Your task to perform on an android device: check out phone information Image 0: 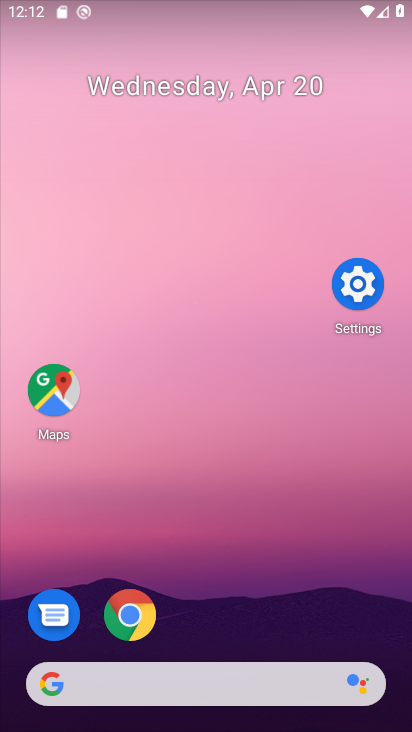
Step 0: drag from (190, 644) to (263, 191)
Your task to perform on an android device: check out phone information Image 1: 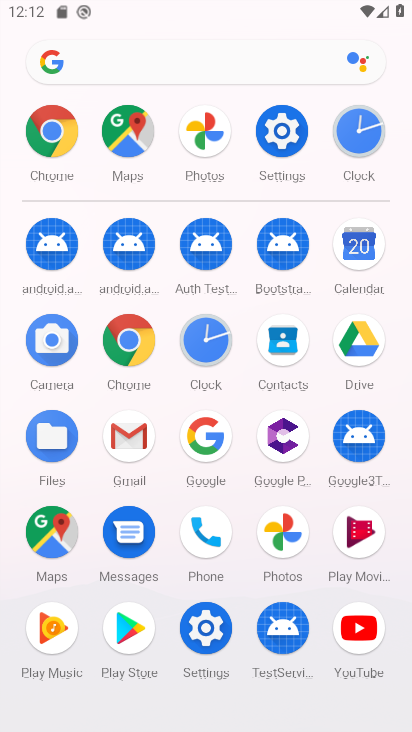
Step 1: click (211, 634)
Your task to perform on an android device: check out phone information Image 2: 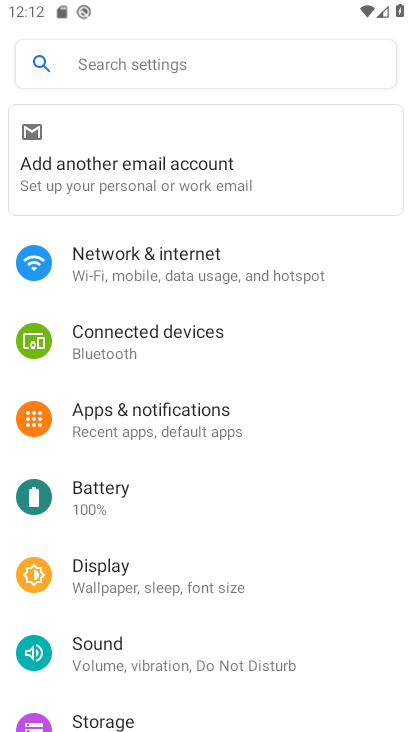
Step 2: drag from (165, 560) to (240, 53)
Your task to perform on an android device: check out phone information Image 3: 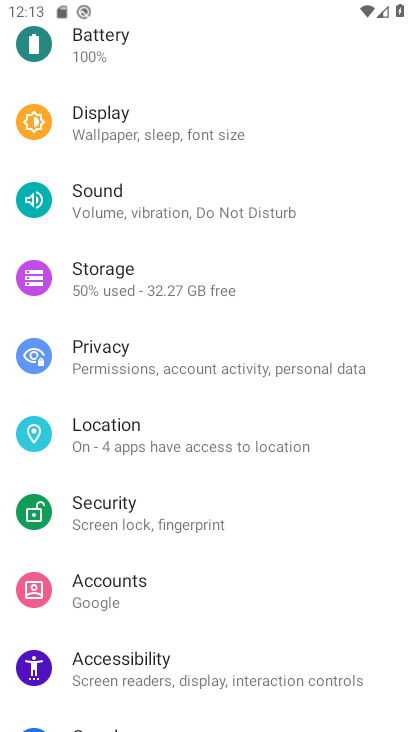
Step 3: drag from (189, 624) to (299, 49)
Your task to perform on an android device: check out phone information Image 4: 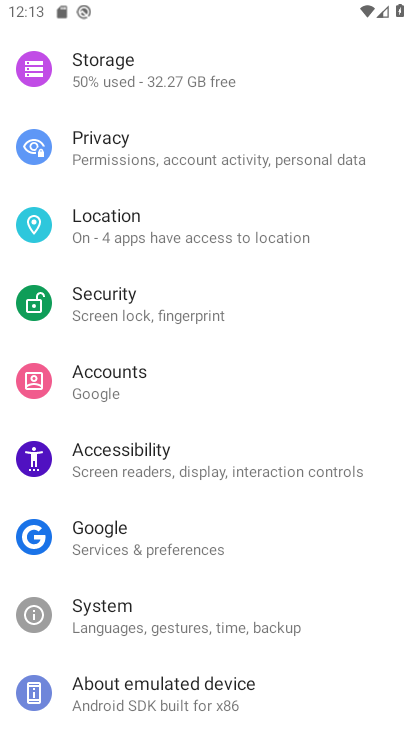
Step 4: click (163, 687)
Your task to perform on an android device: check out phone information Image 5: 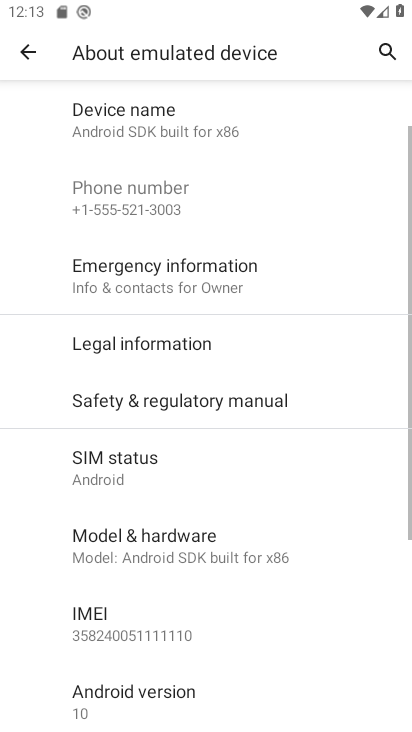
Step 5: task complete